Your task to perform on an android device: turn off data saver in the chrome app Image 0: 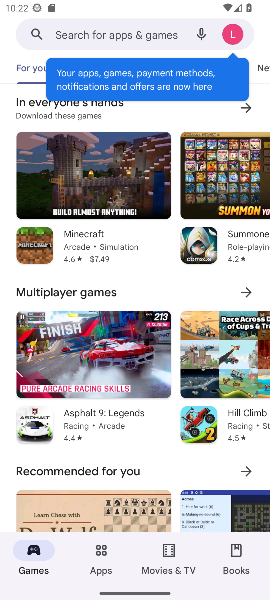
Step 0: click (231, 35)
Your task to perform on an android device: turn off data saver in the chrome app Image 1: 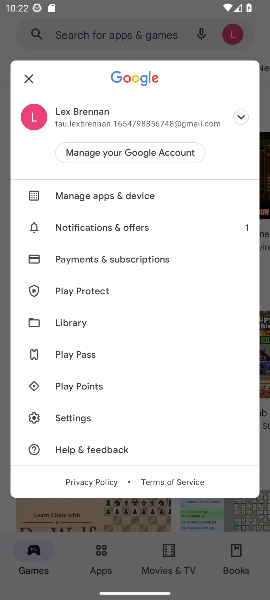
Step 1: press home button
Your task to perform on an android device: turn off data saver in the chrome app Image 2: 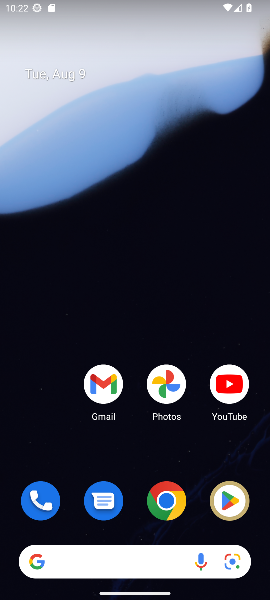
Step 2: click (158, 506)
Your task to perform on an android device: turn off data saver in the chrome app Image 3: 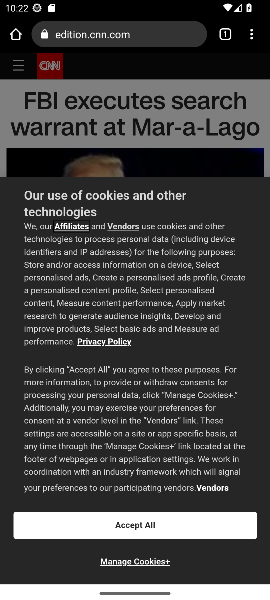
Step 3: click (251, 35)
Your task to perform on an android device: turn off data saver in the chrome app Image 4: 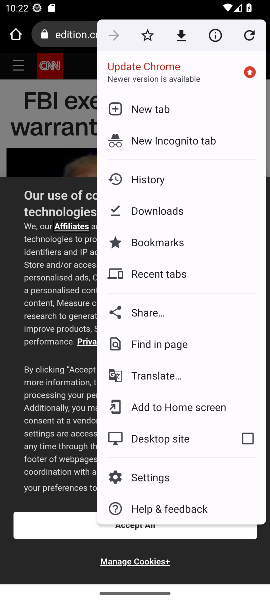
Step 4: click (140, 475)
Your task to perform on an android device: turn off data saver in the chrome app Image 5: 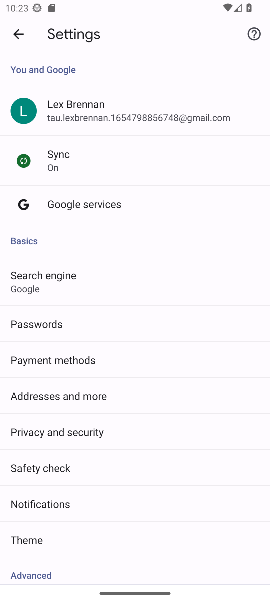
Step 5: task complete